Your task to perform on an android device: open a bookmark in the chrome app Image 0: 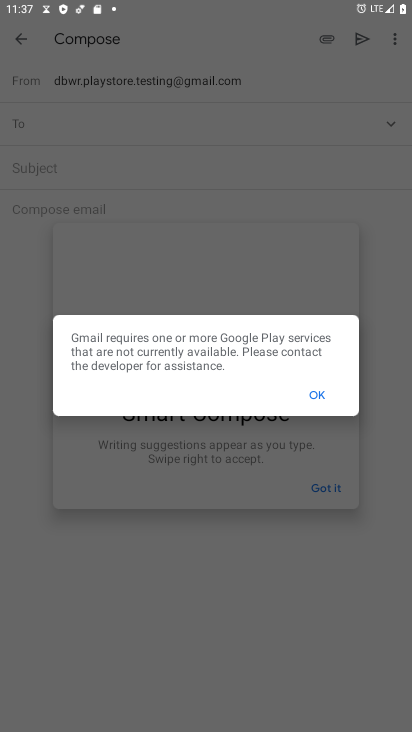
Step 0: press back button
Your task to perform on an android device: open a bookmark in the chrome app Image 1: 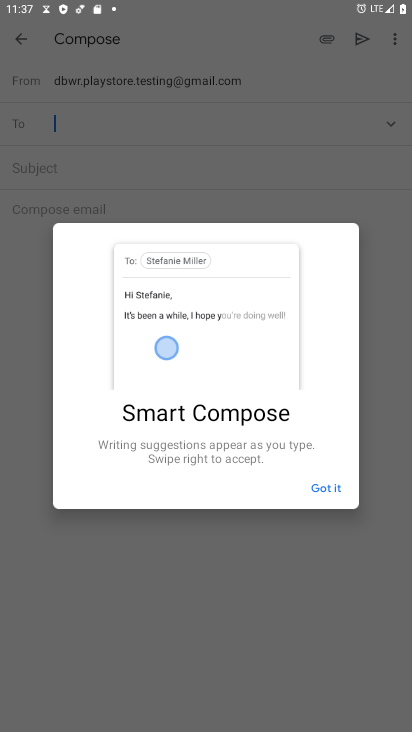
Step 1: press home button
Your task to perform on an android device: open a bookmark in the chrome app Image 2: 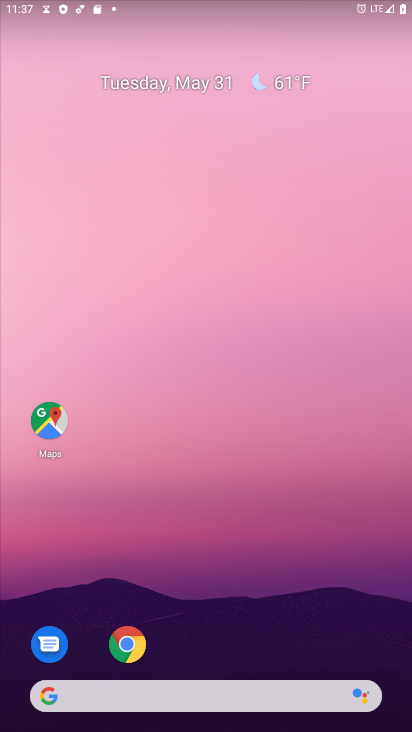
Step 2: click (135, 626)
Your task to perform on an android device: open a bookmark in the chrome app Image 3: 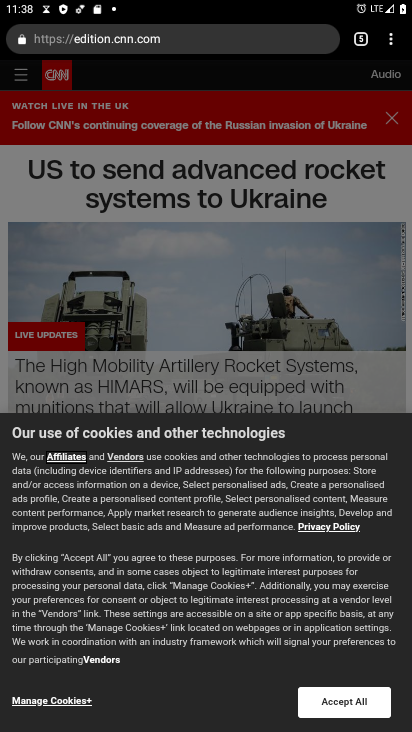
Step 3: task complete